Your task to perform on an android device: check battery use Image 0: 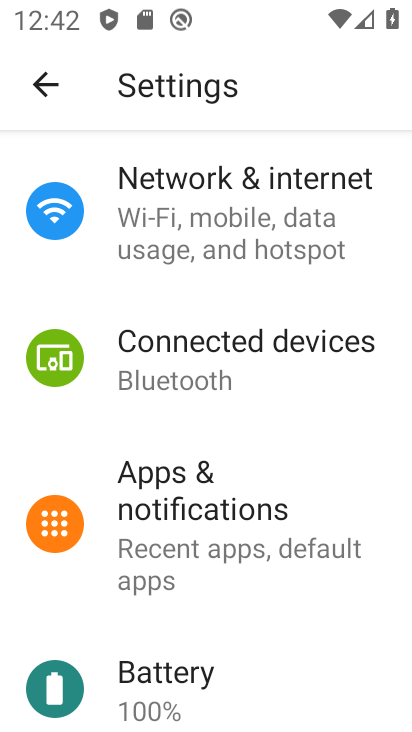
Step 0: click (174, 677)
Your task to perform on an android device: check battery use Image 1: 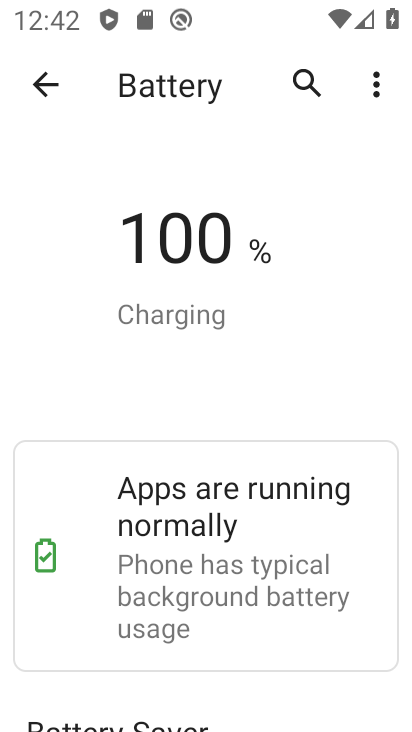
Step 1: click (382, 87)
Your task to perform on an android device: check battery use Image 2: 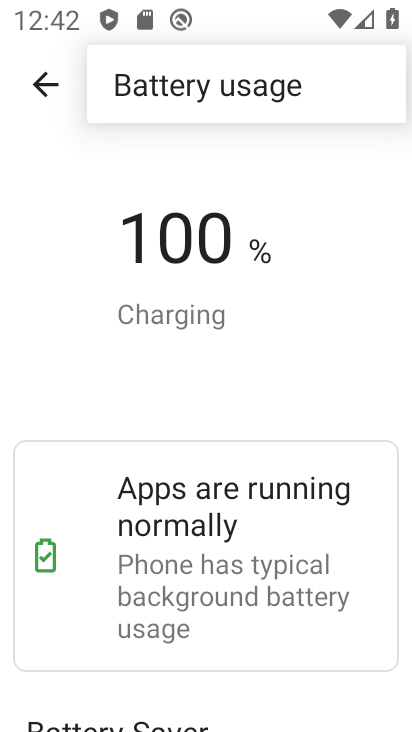
Step 2: click (257, 96)
Your task to perform on an android device: check battery use Image 3: 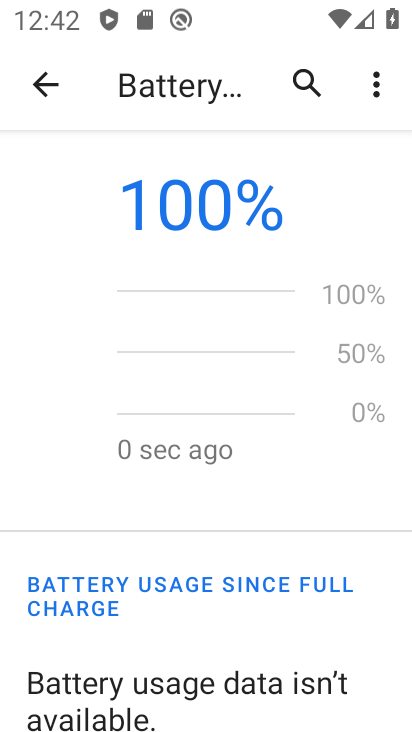
Step 3: task complete